Your task to perform on an android device: Go to display settings Image 0: 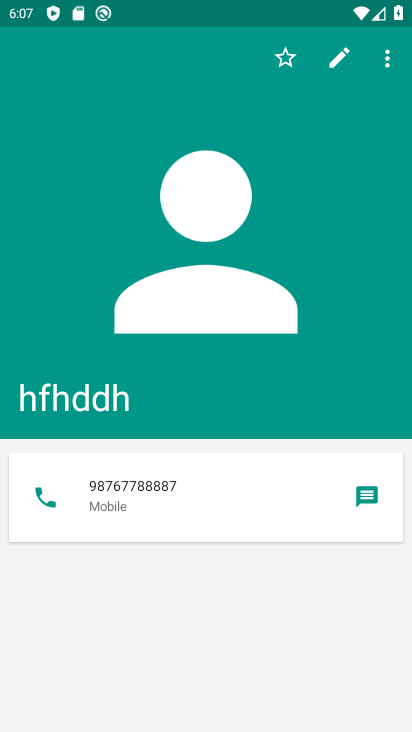
Step 0: press home button
Your task to perform on an android device: Go to display settings Image 1: 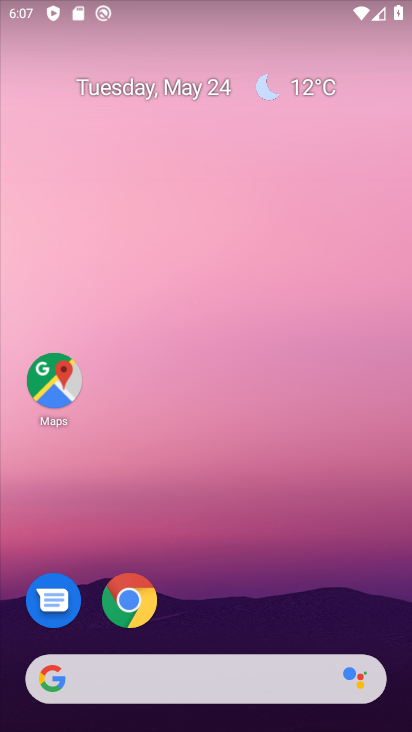
Step 1: drag from (287, 601) to (299, 65)
Your task to perform on an android device: Go to display settings Image 2: 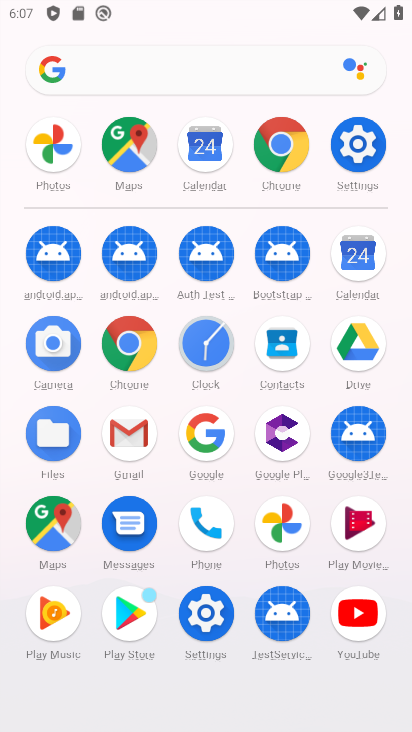
Step 2: click (365, 141)
Your task to perform on an android device: Go to display settings Image 3: 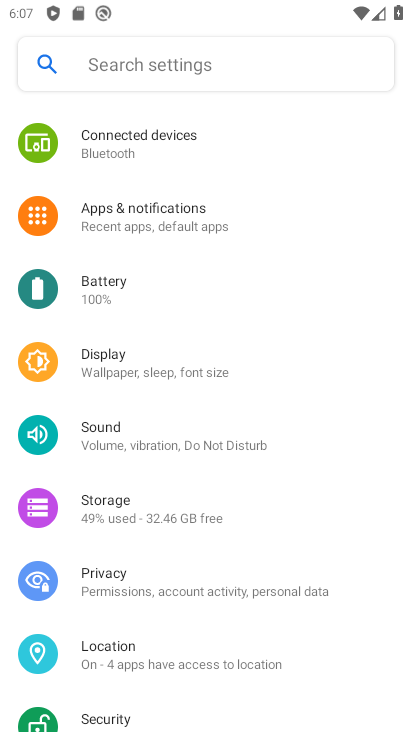
Step 3: click (119, 358)
Your task to perform on an android device: Go to display settings Image 4: 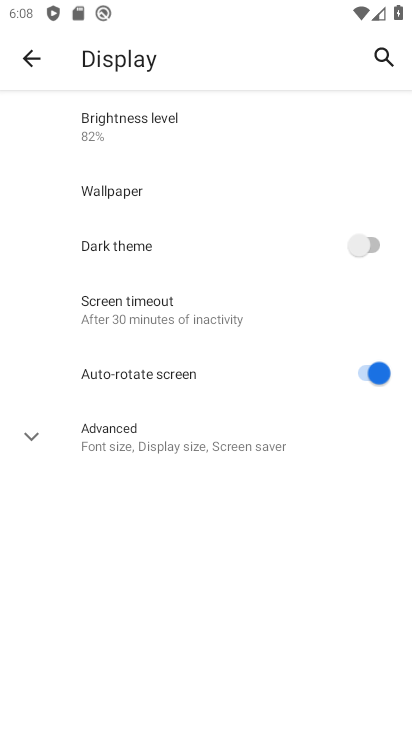
Step 4: press back button
Your task to perform on an android device: Go to display settings Image 5: 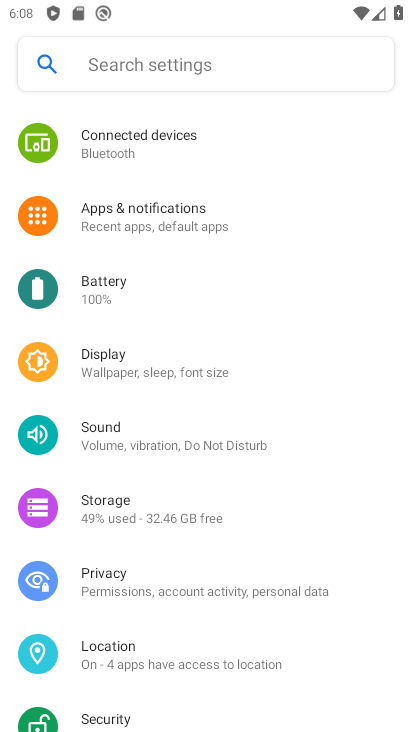
Step 5: click (136, 380)
Your task to perform on an android device: Go to display settings Image 6: 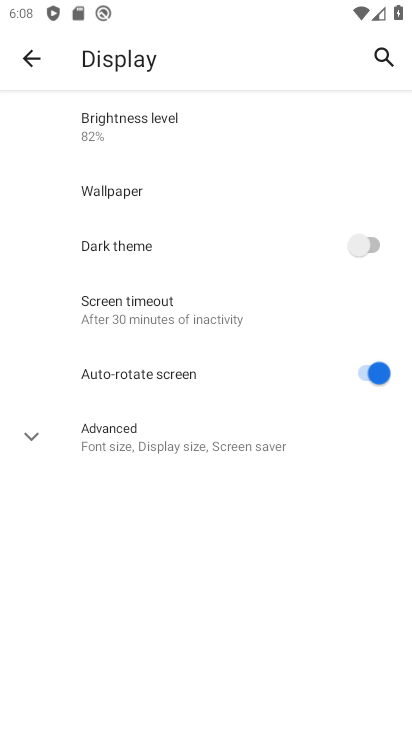
Step 6: task complete